Your task to perform on an android device: open a new tab in the chrome app Image 0: 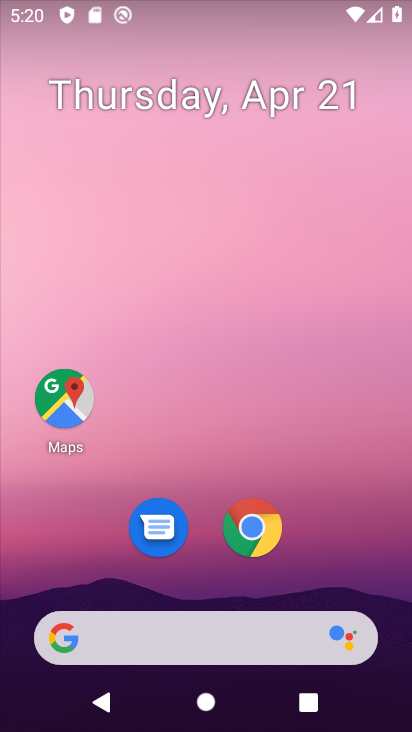
Step 0: click (249, 525)
Your task to perform on an android device: open a new tab in the chrome app Image 1: 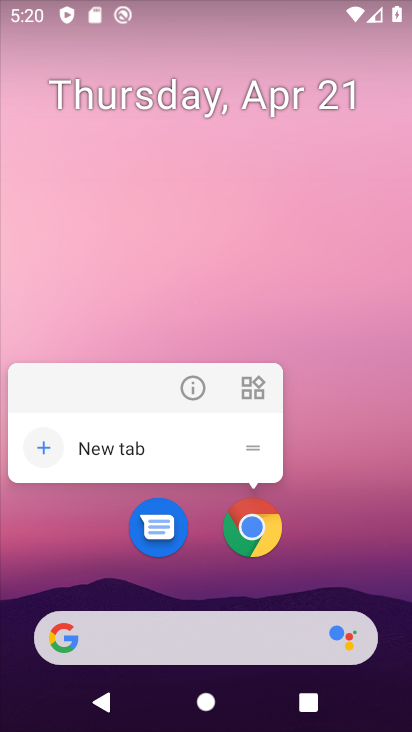
Step 1: click (254, 530)
Your task to perform on an android device: open a new tab in the chrome app Image 2: 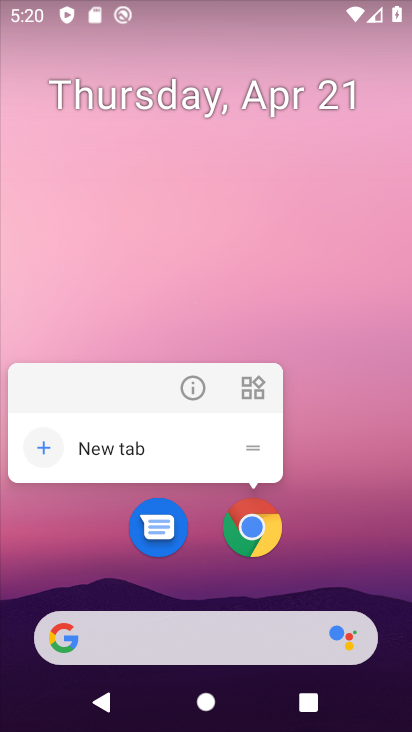
Step 2: click (254, 527)
Your task to perform on an android device: open a new tab in the chrome app Image 3: 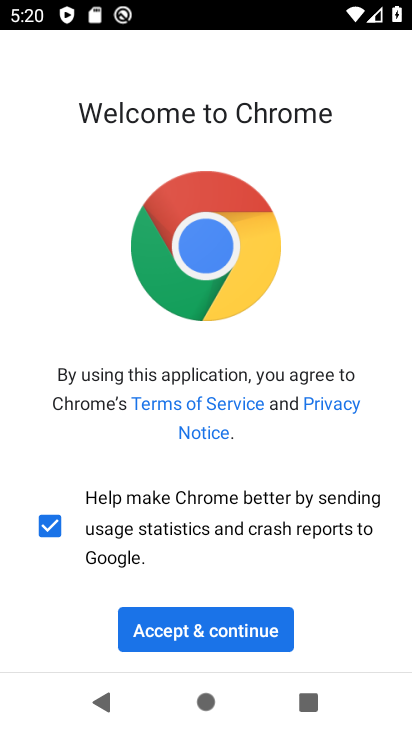
Step 3: click (179, 621)
Your task to perform on an android device: open a new tab in the chrome app Image 4: 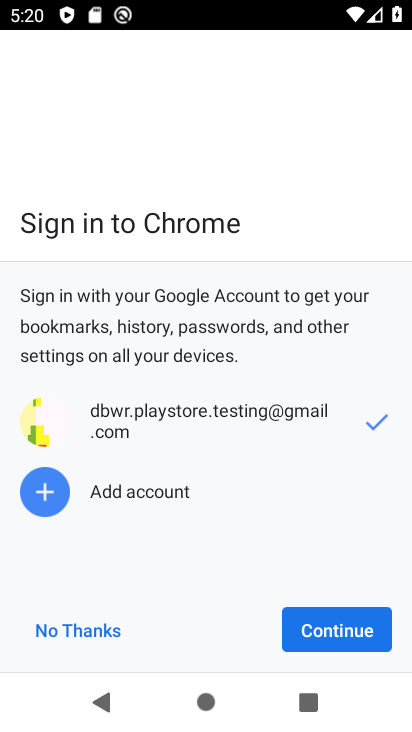
Step 4: click (322, 614)
Your task to perform on an android device: open a new tab in the chrome app Image 5: 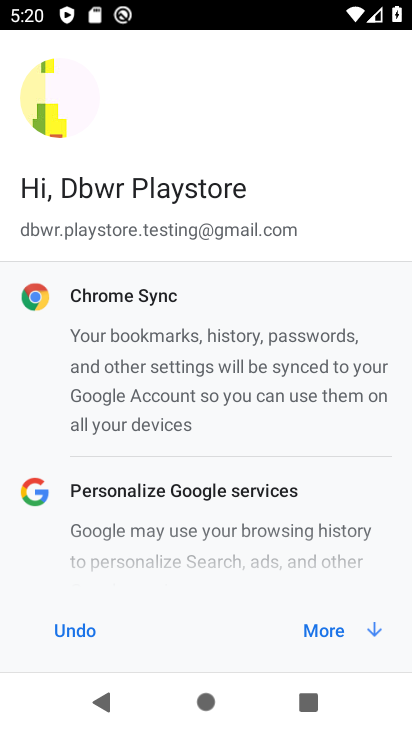
Step 5: click (329, 629)
Your task to perform on an android device: open a new tab in the chrome app Image 6: 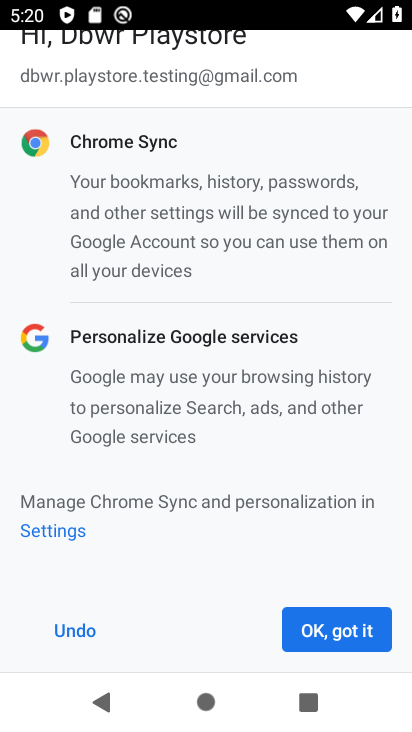
Step 6: click (339, 627)
Your task to perform on an android device: open a new tab in the chrome app Image 7: 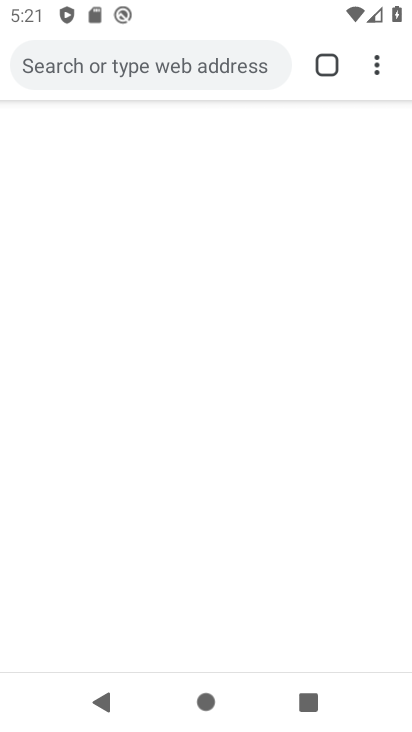
Step 7: click (376, 62)
Your task to perform on an android device: open a new tab in the chrome app Image 8: 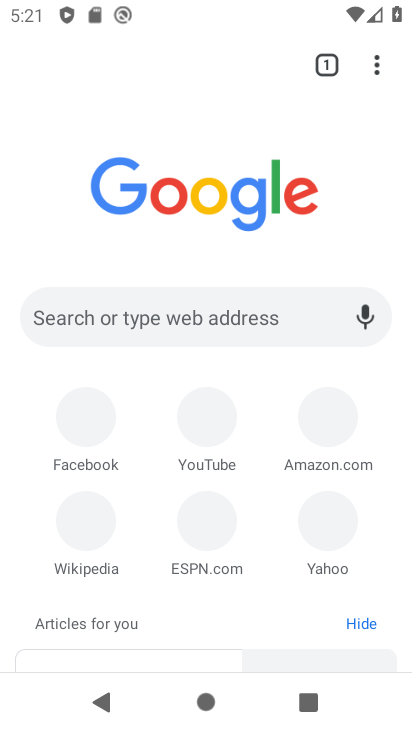
Step 8: click (380, 71)
Your task to perform on an android device: open a new tab in the chrome app Image 9: 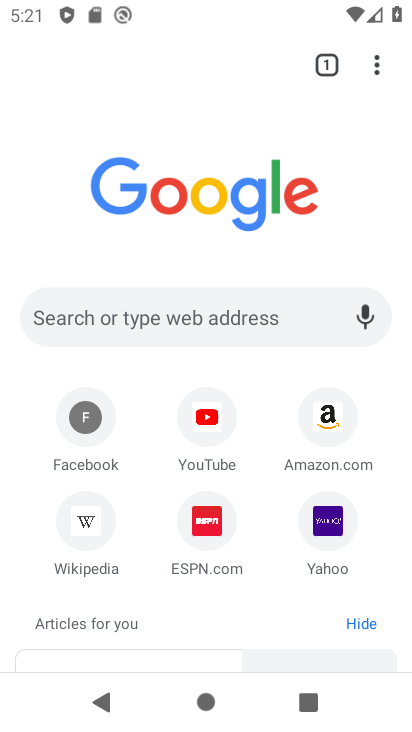
Step 9: click (165, 123)
Your task to perform on an android device: open a new tab in the chrome app Image 10: 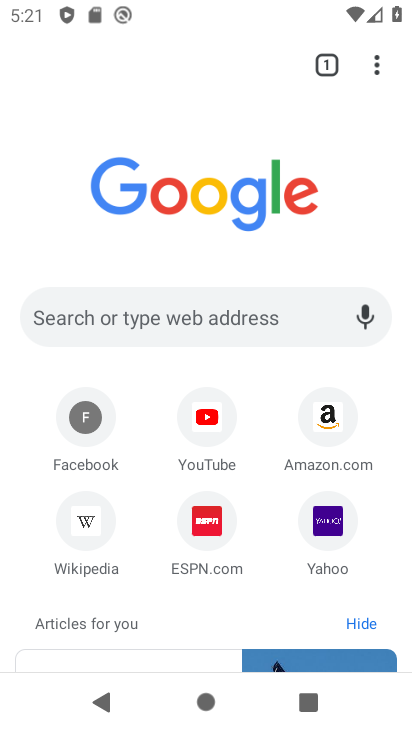
Step 10: click (378, 57)
Your task to perform on an android device: open a new tab in the chrome app Image 11: 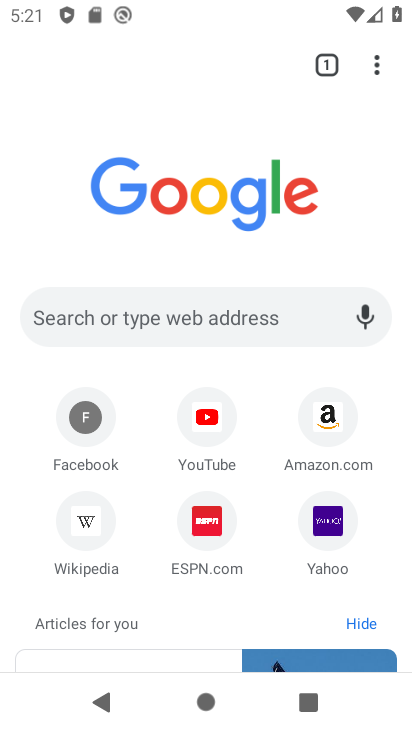
Step 11: task complete